Your task to perform on an android device: turn off notifications settings in the gmail app Image 0: 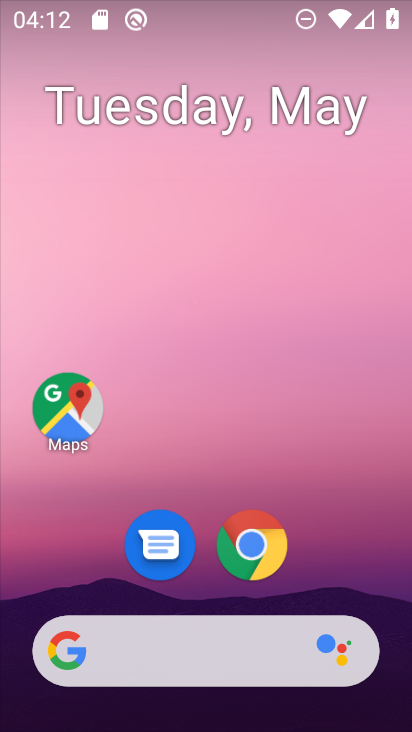
Step 0: drag from (387, 618) to (348, 149)
Your task to perform on an android device: turn off notifications settings in the gmail app Image 1: 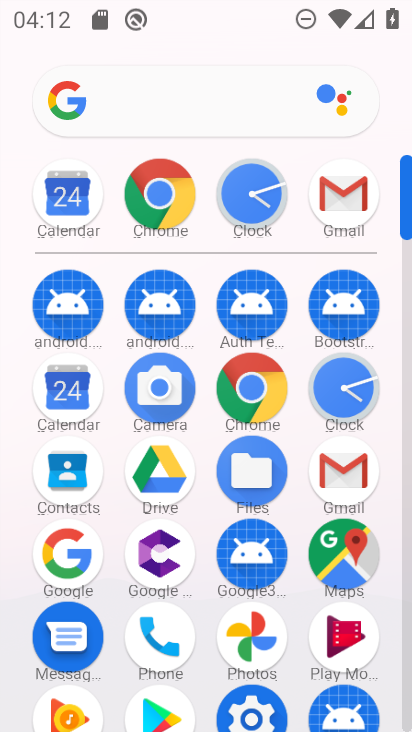
Step 1: click (339, 472)
Your task to perform on an android device: turn off notifications settings in the gmail app Image 2: 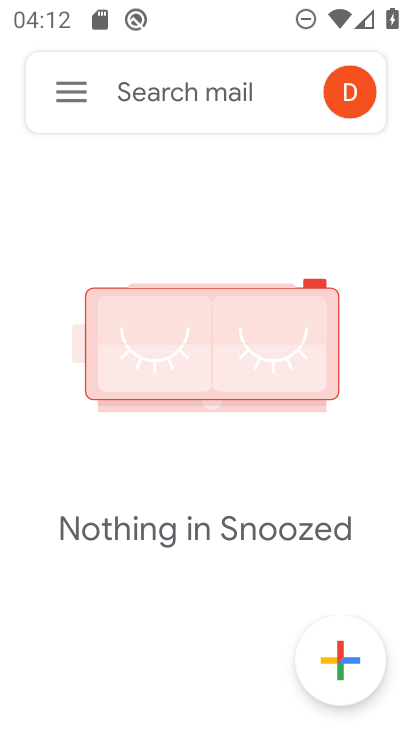
Step 2: click (66, 92)
Your task to perform on an android device: turn off notifications settings in the gmail app Image 3: 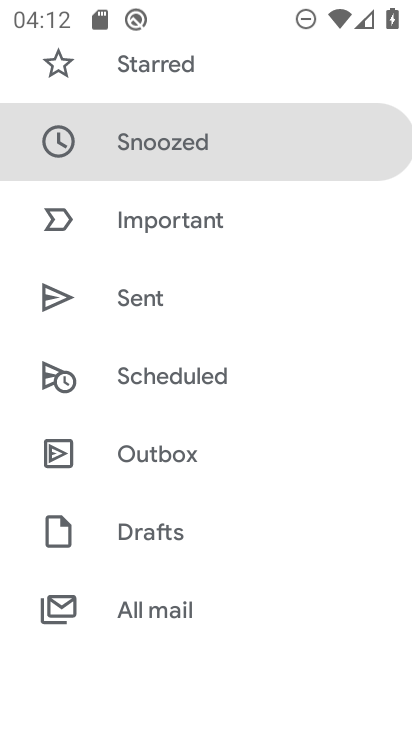
Step 3: drag from (240, 632) to (263, 164)
Your task to perform on an android device: turn off notifications settings in the gmail app Image 4: 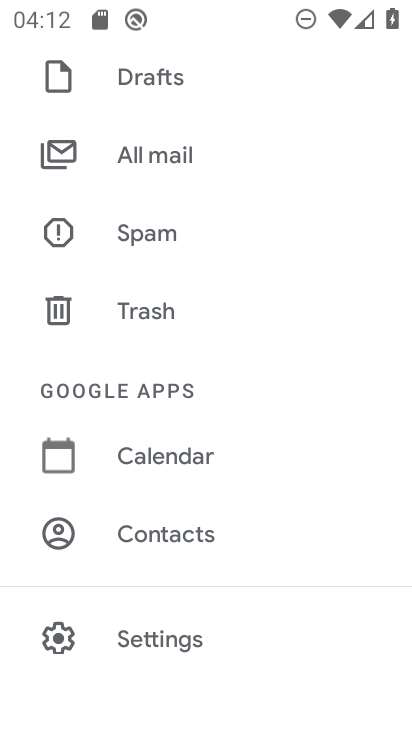
Step 4: click (180, 652)
Your task to perform on an android device: turn off notifications settings in the gmail app Image 5: 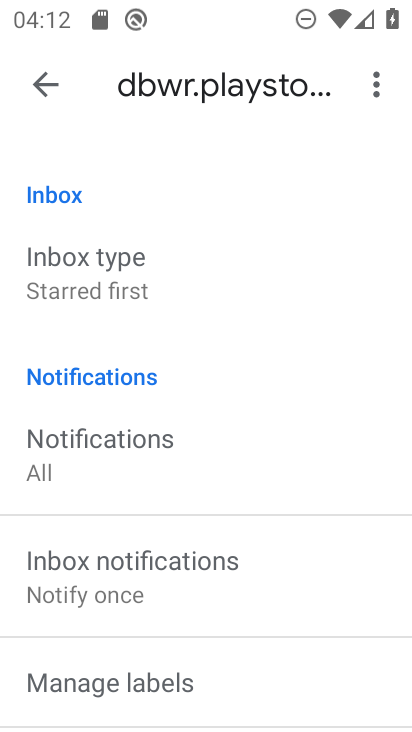
Step 5: drag from (290, 635) to (304, 261)
Your task to perform on an android device: turn off notifications settings in the gmail app Image 6: 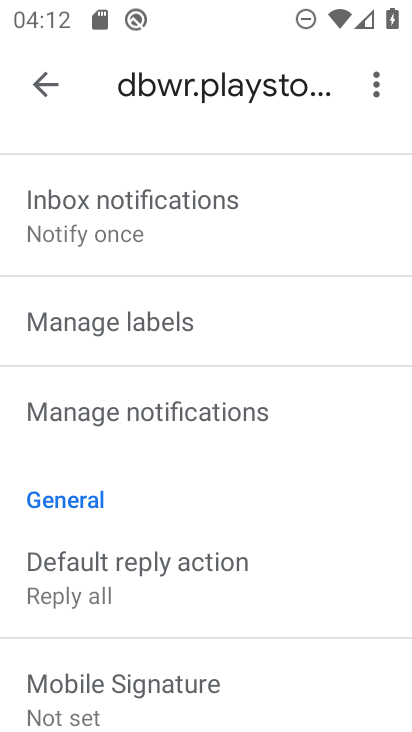
Step 6: click (136, 421)
Your task to perform on an android device: turn off notifications settings in the gmail app Image 7: 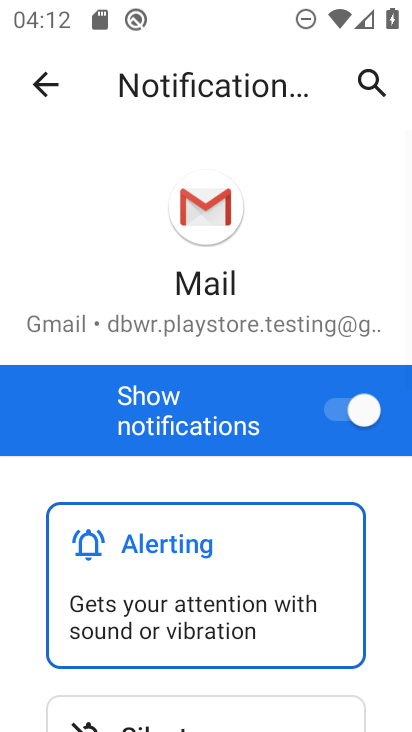
Step 7: click (335, 414)
Your task to perform on an android device: turn off notifications settings in the gmail app Image 8: 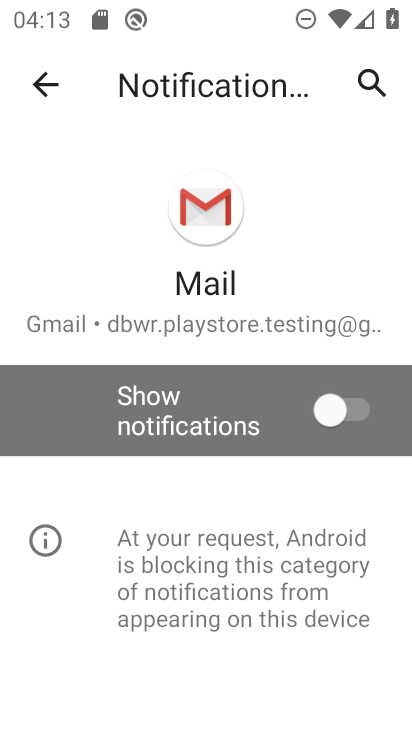
Step 8: task complete